Your task to perform on an android device: Go to notification settings Image 0: 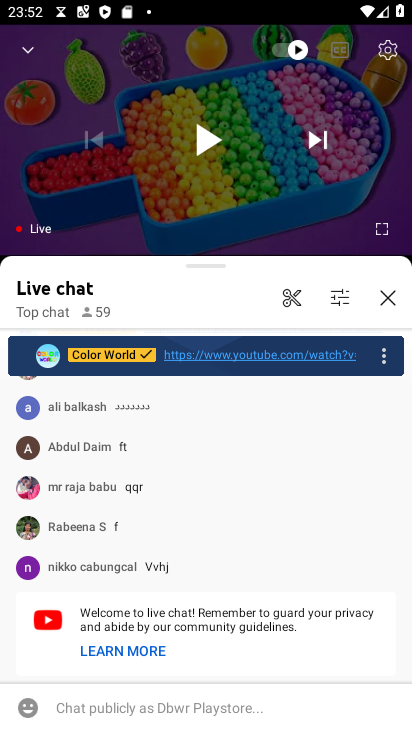
Step 0: press back button
Your task to perform on an android device: Go to notification settings Image 1: 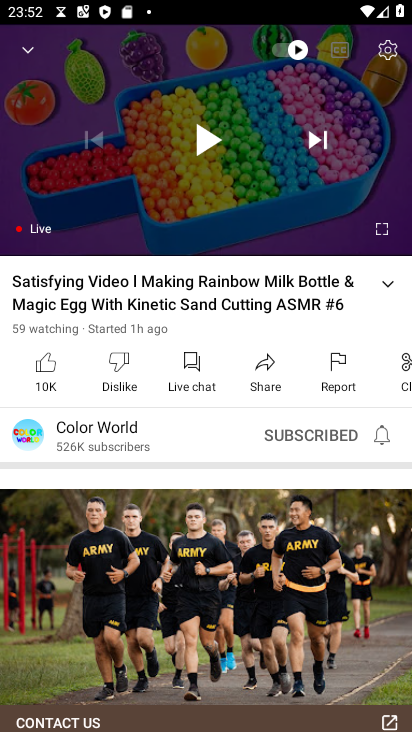
Step 1: press back button
Your task to perform on an android device: Go to notification settings Image 2: 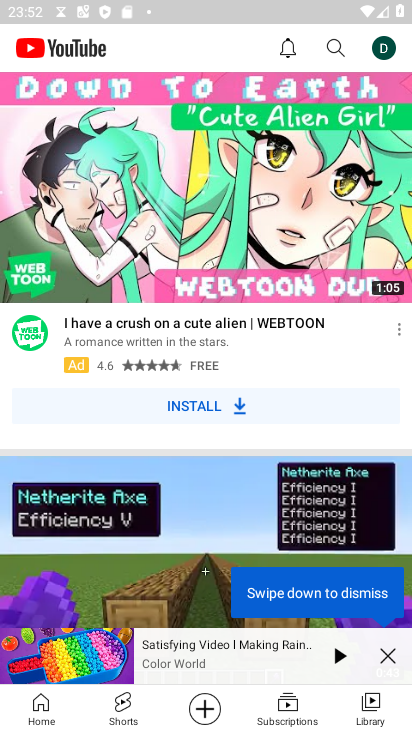
Step 2: press home button
Your task to perform on an android device: Go to notification settings Image 3: 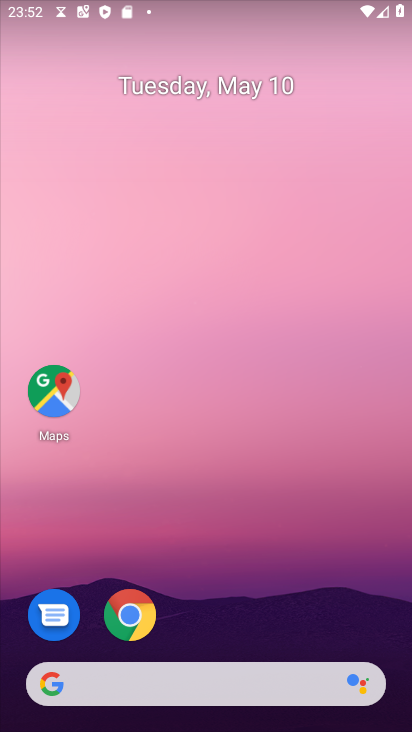
Step 3: drag from (244, 601) to (296, 99)
Your task to perform on an android device: Go to notification settings Image 4: 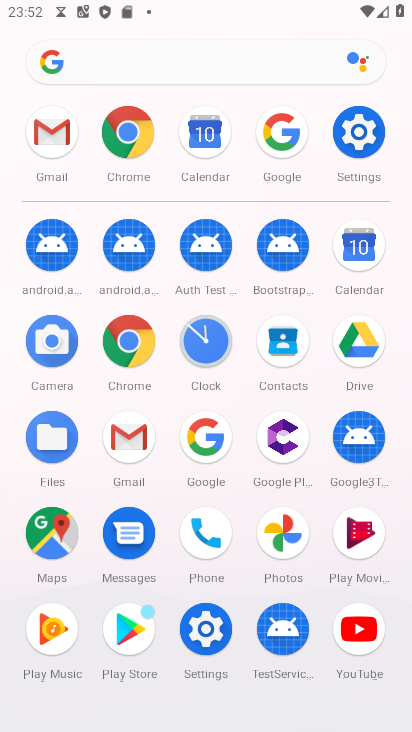
Step 4: click (361, 131)
Your task to perform on an android device: Go to notification settings Image 5: 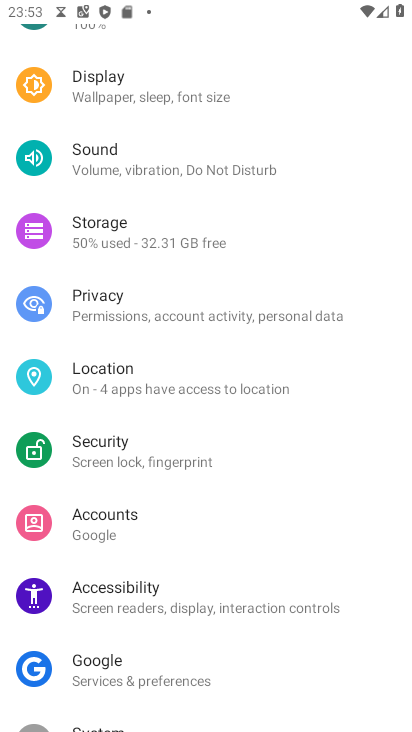
Step 5: drag from (225, 271) to (219, 386)
Your task to perform on an android device: Go to notification settings Image 6: 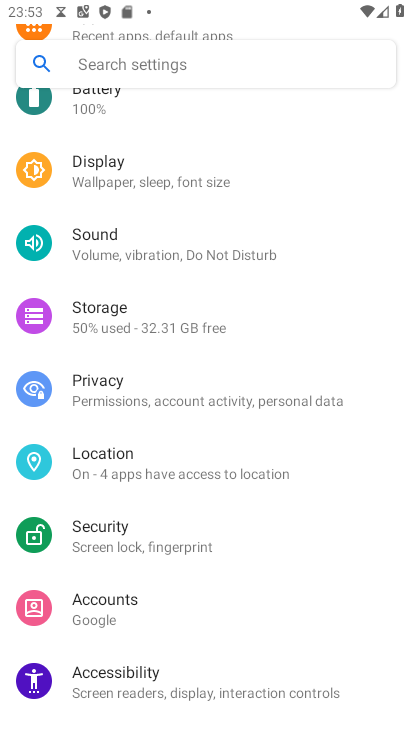
Step 6: drag from (219, 219) to (235, 307)
Your task to perform on an android device: Go to notification settings Image 7: 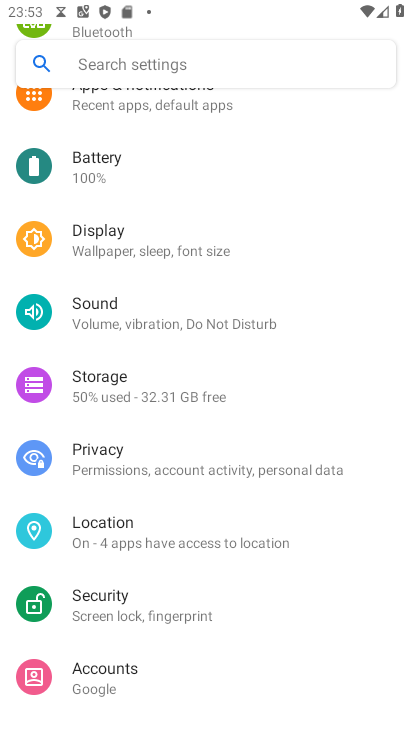
Step 7: drag from (188, 176) to (194, 288)
Your task to perform on an android device: Go to notification settings Image 8: 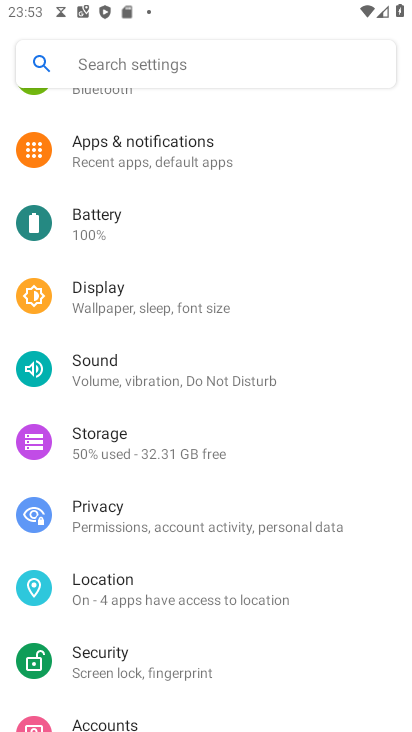
Step 8: click (127, 161)
Your task to perform on an android device: Go to notification settings Image 9: 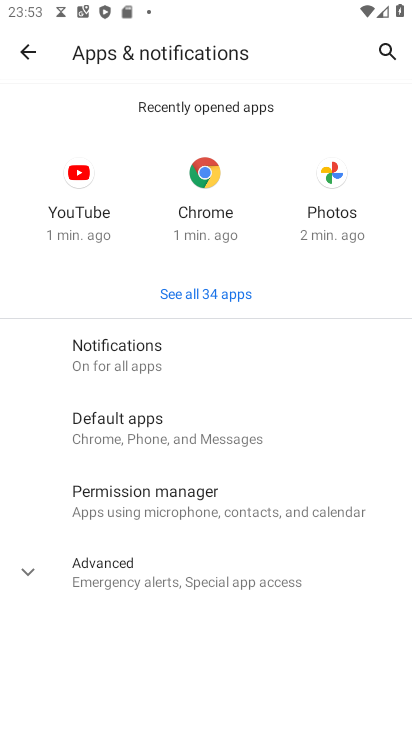
Step 9: click (95, 349)
Your task to perform on an android device: Go to notification settings Image 10: 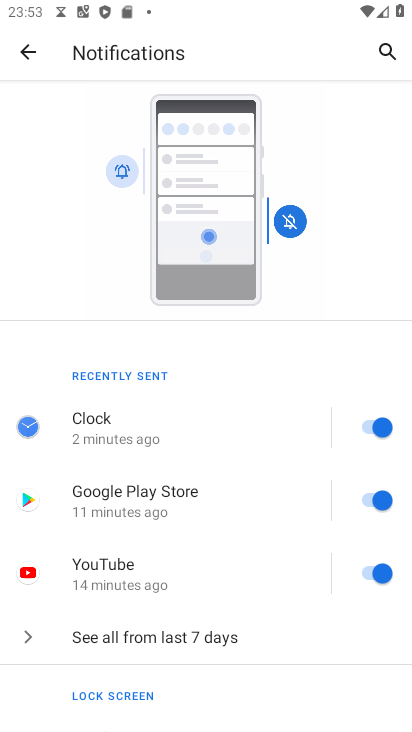
Step 10: task complete